Your task to perform on an android device: Open the phone app and click the voicemail tab. Image 0: 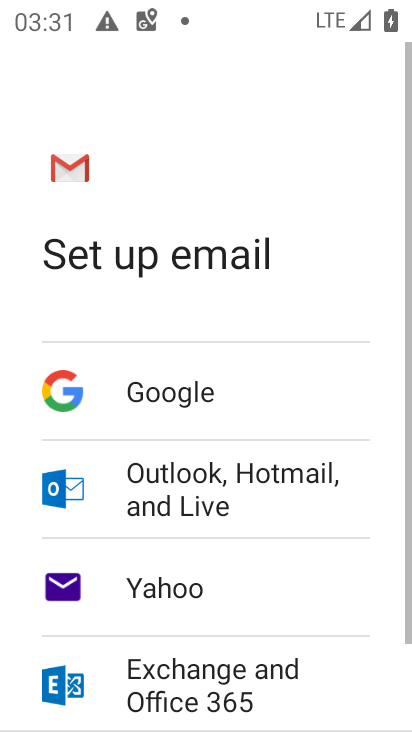
Step 0: press home button
Your task to perform on an android device: Open the phone app and click the voicemail tab. Image 1: 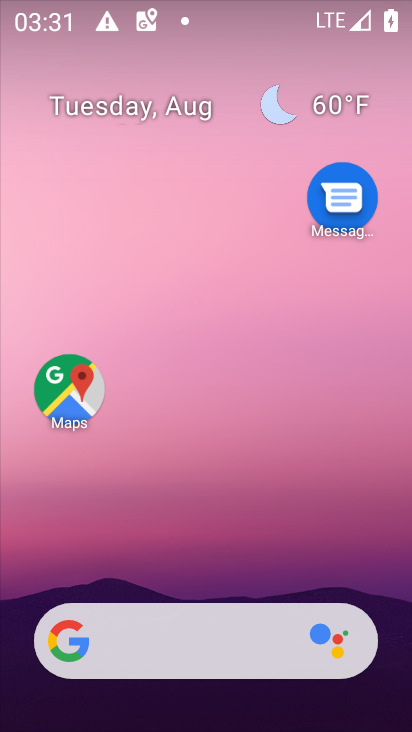
Step 1: drag from (138, 587) to (196, 0)
Your task to perform on an android device: Open the phone app and click the voicemail tab. Image 2: 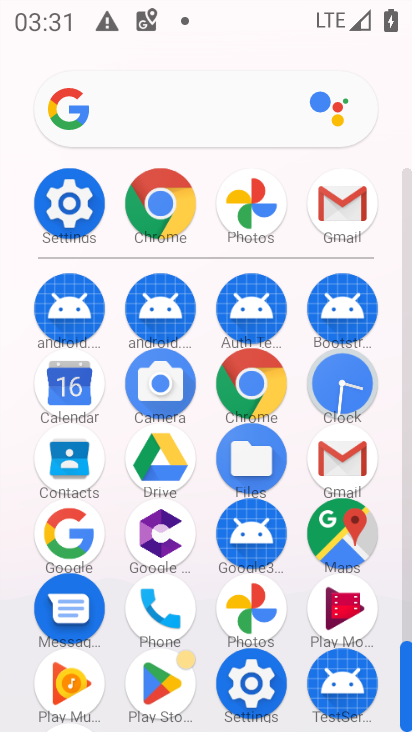
Step 2: click (140, 602)
Your task to perform on an android device: Open the phone app and click the voicemail tab. Image 3: 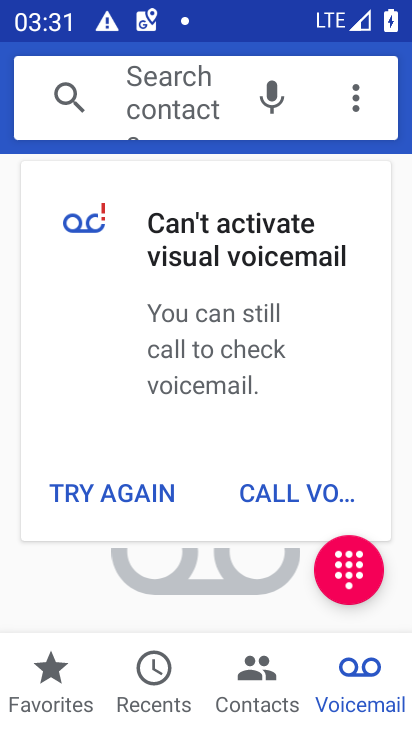
Step 3: task complete